Your task to perform on an android device: Is it going to rain tomorrow? Image 0: 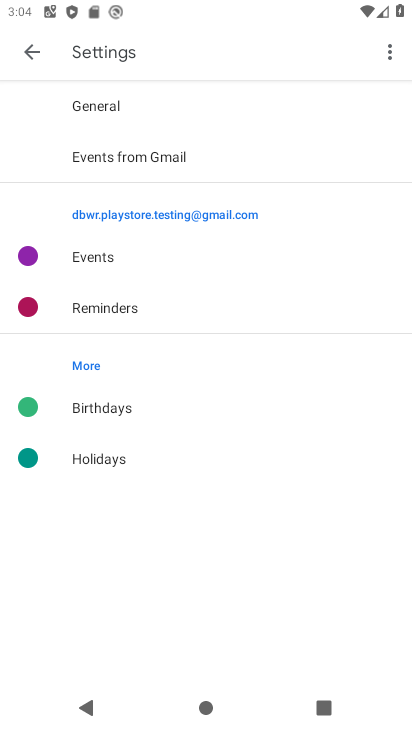
Step 0: press home button
Your task to perform on an android device: Is it going to rain tomorrow? Image 1: 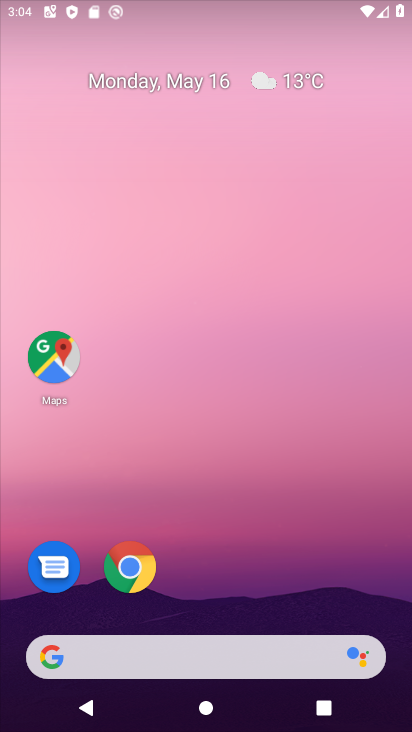
Step 1: drag from (271, 523) to (286, 128)
Your task to perform on an android device: Is it going to rain tomorrow? Image 2: 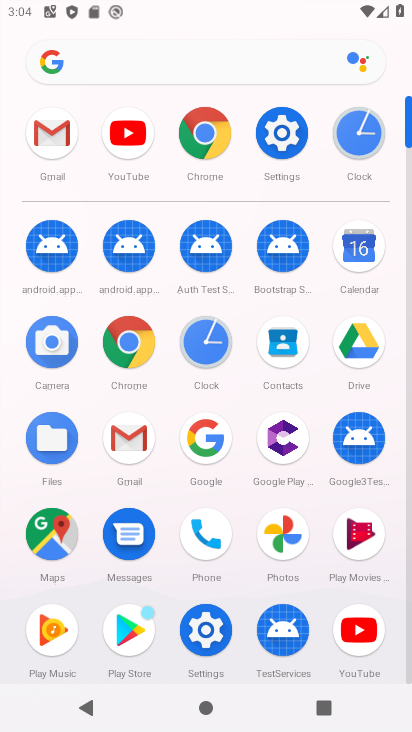
Step 2: click (205, 123)
Your task to perform on an android device: Is it going to rain tomorrow? Image 3: 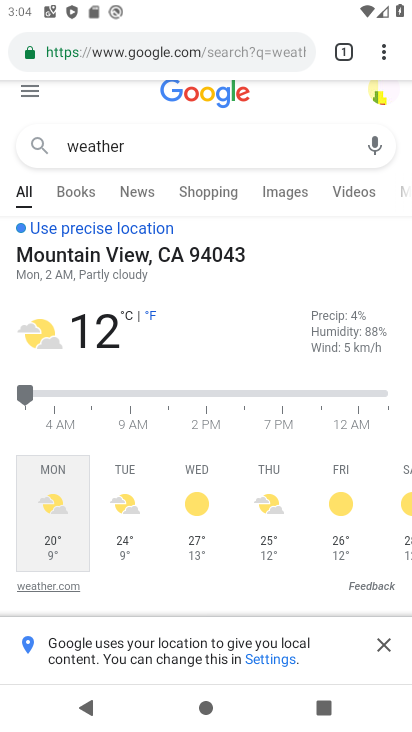
Step 3: click (127, 483)
Your task to perform on an android device: Is it going to rain tomorrow? Image 4: 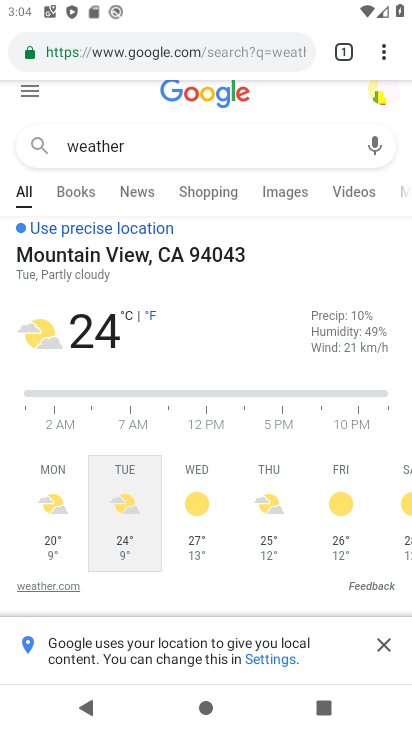
Step 4: task complete